Your task to perform on an android device: delete location history Image 0: 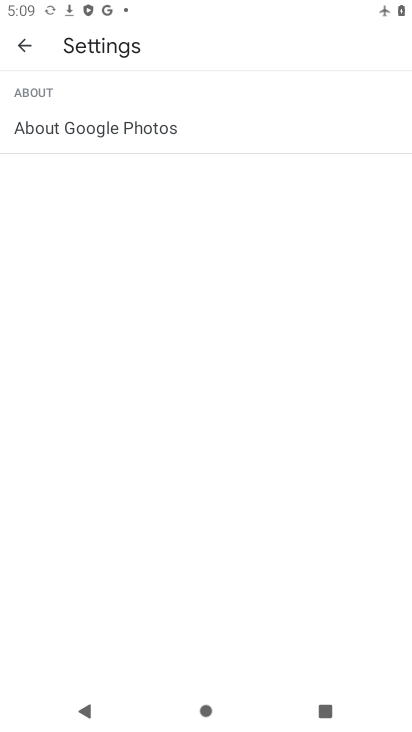
Step 0: press home button
Your task to perform on an android device: delete location history Image 1: 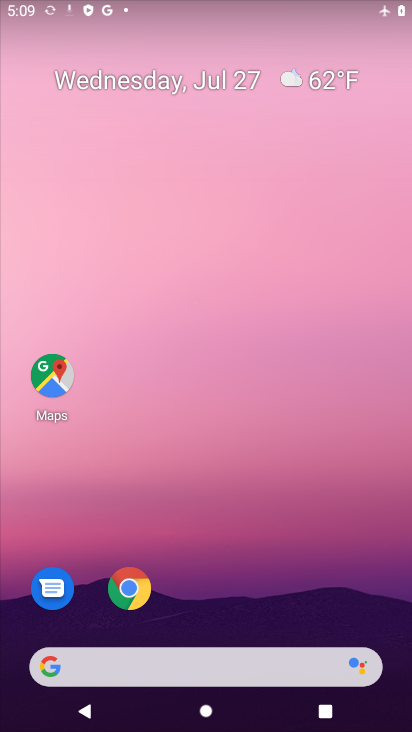
Step 1: drag from (167, 538) to (210, 140)
Your task to perform on an android device: delete location history Image 2: 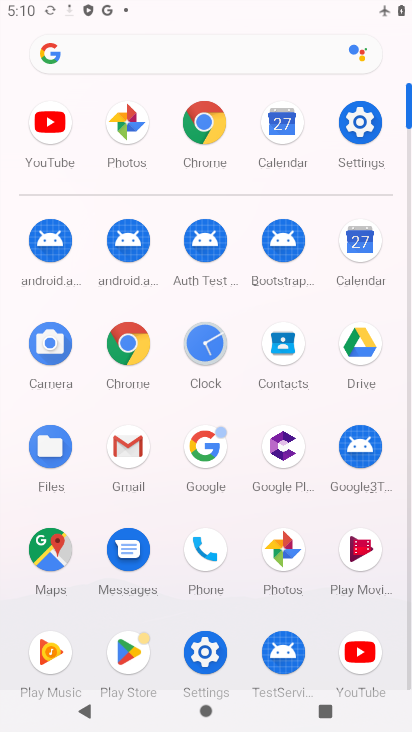
Step 2: click (201, 657)
Your task to perform on an android device: delete location history Image 3: 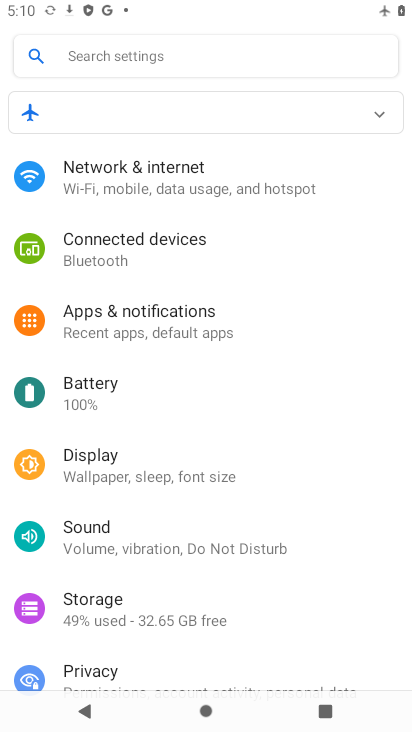
Step 3: drag from (204, 409) to (204, 182)
Your task to perform on an android device: delete location history Image 4: 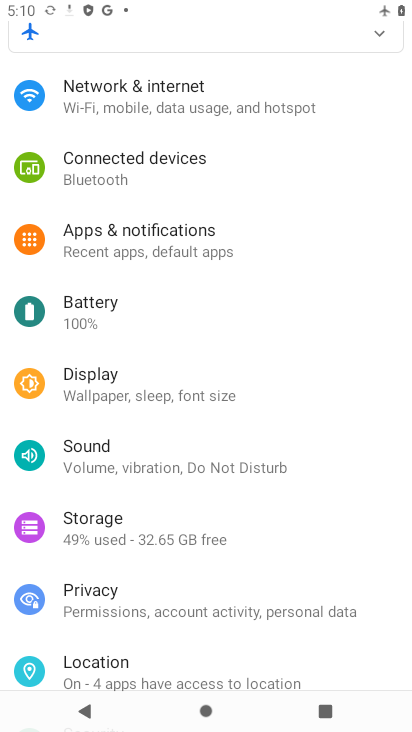
Step 4: drag from (181, 551) to (208, 277)
Your task to perform on an android device: delete location history Image 5: 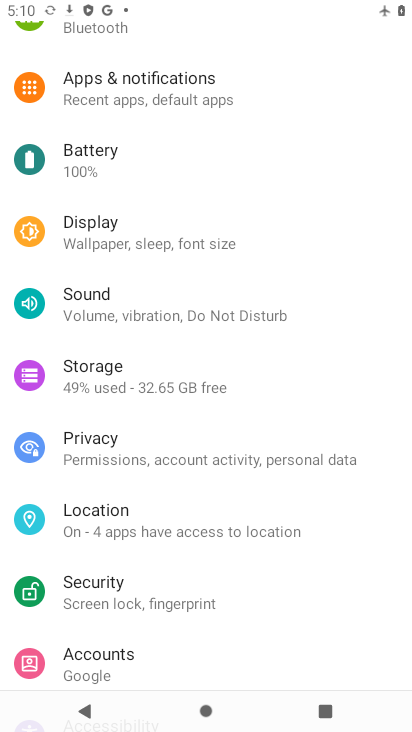
Step 5: click (208, 715)
Your task to perform on an android device: delete location history Image 6: 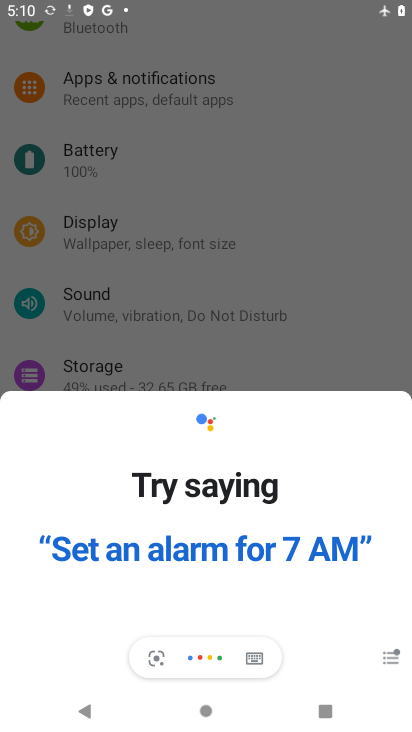
Step 6: press home button
Your task to perform on an android device: delete location history Image 7: 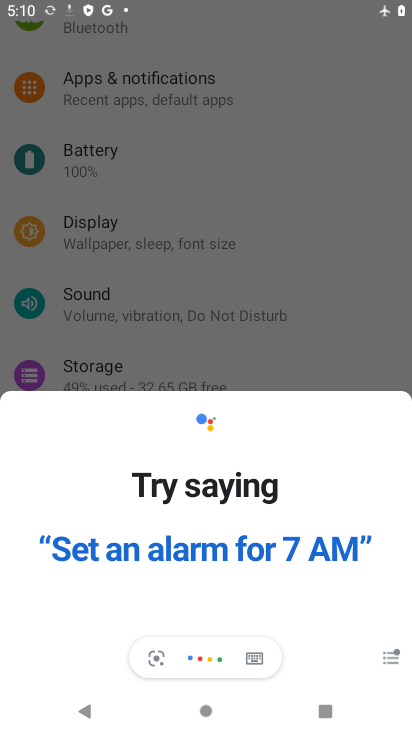
Step 7: drag from (208, 715) to (328, 541)
Your task to perform on an android device: delete location history Image 8: 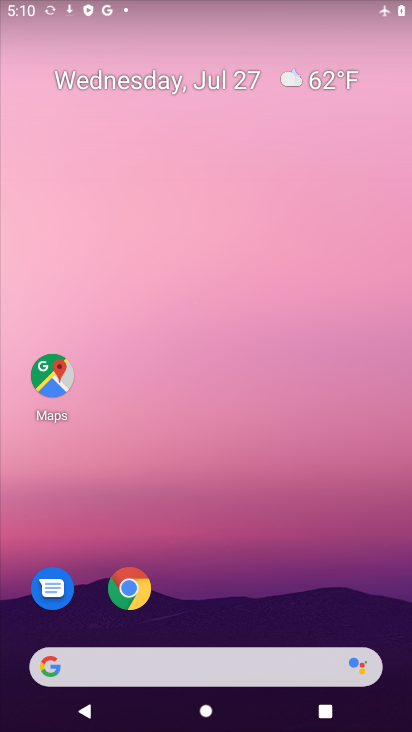
Step 8: click (213, 608)
Your task to perform on an android device: delete location history Image 9: 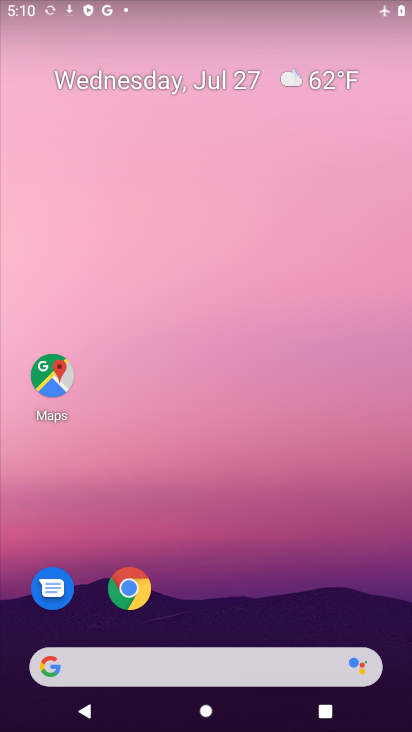
Step 9: drag from (189, 547) to (243, 5)
Your task to perform on an android device: delete location history Image 10: 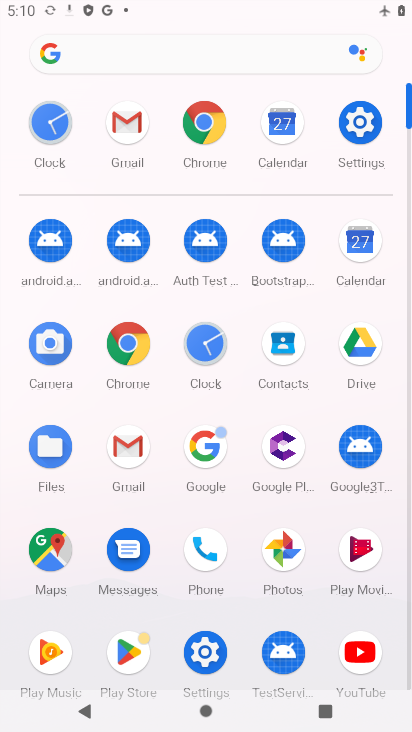
Step 10: click (158, 617)
Your task to perform on an android device: delete location history Image 11: 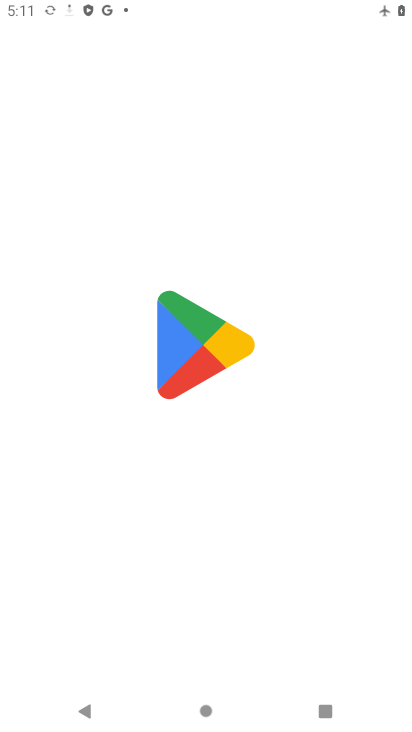
Step 11: press back button
Your task to perform on an android device: delete location history Image 12: 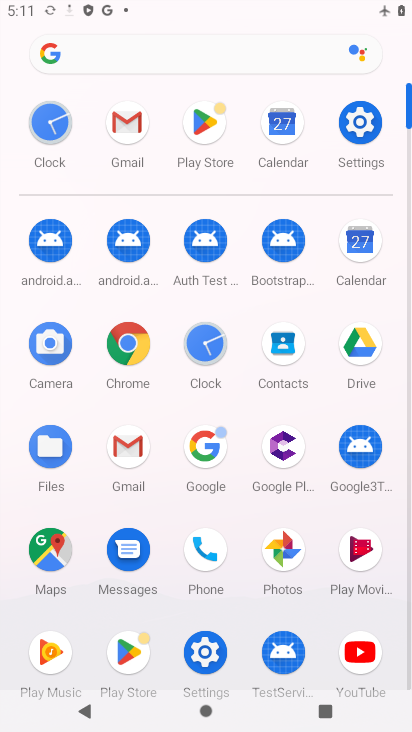
Step 12: click (211, 656)
Your task to perform on an android device: delete location history Image 13: 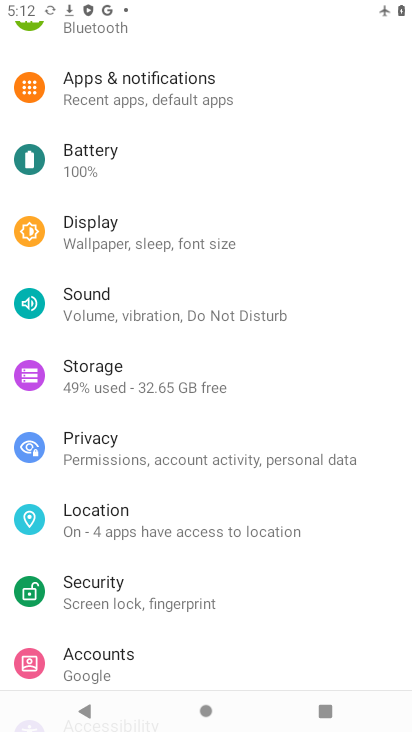
Step 13: drag from (103, 341) to (106, 469)
Your task to perform on an android device: delete location history Image 14: 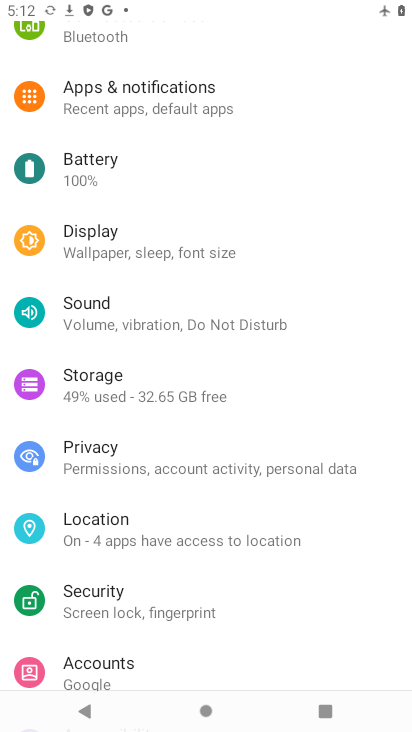
Step 14: drag from (193, 292) to (140, 671)
Your task to perform on an android device: delete location history Image 15: 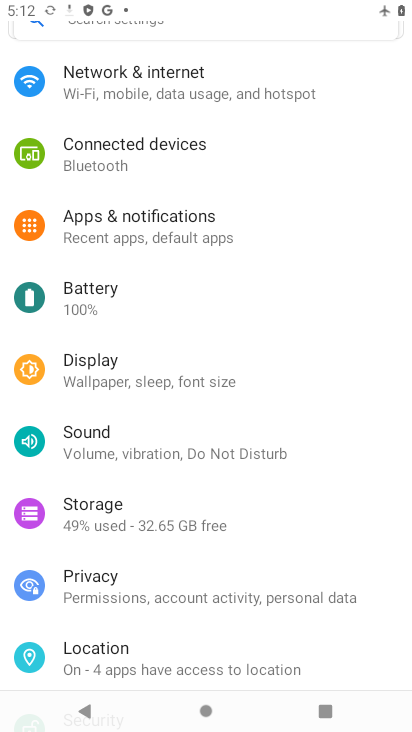
Step 15: click (93, 653)
Your task to perform on an android device: delete location history Image 16: 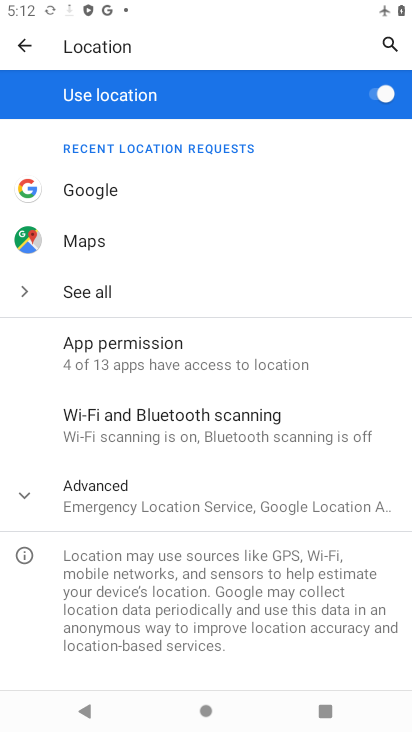
Step 16: click (96, 491)
Your task to perform on an android device: delete location history Image 17: 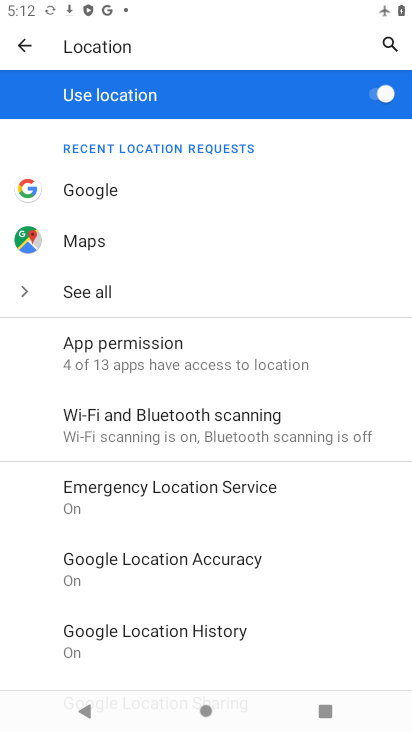
Step 17: drag from (280, 627) to (244, 298)
Your task to perform on an android device: delete location history Image 18: 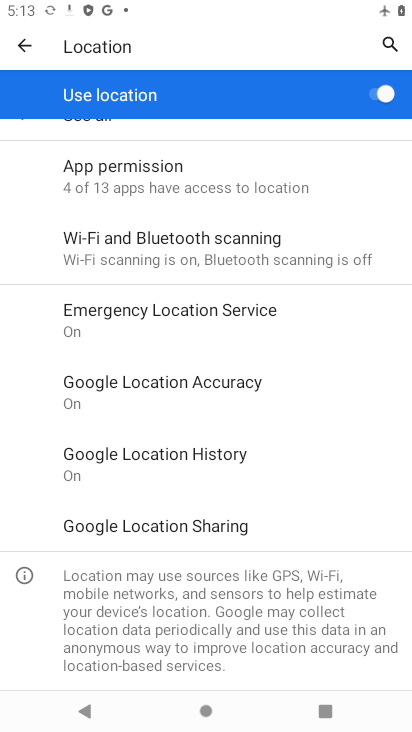
Step 18: click (160, 457)
Your task to perform on an android device: delete location history Image 19: 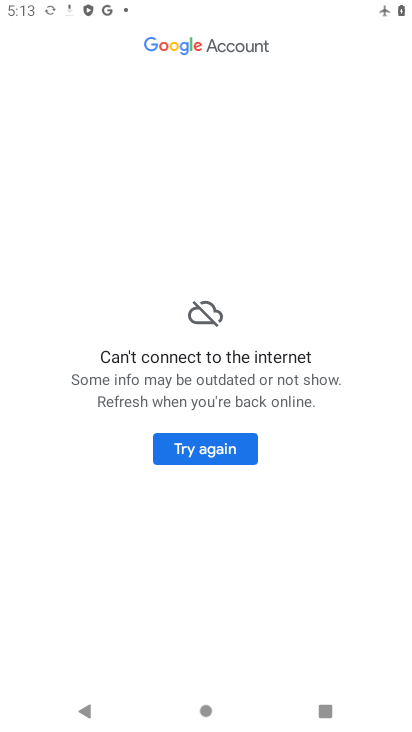
Step 19: task complete